Your task to perform on an android device: Search for vegetarian restaurants on Maps Image 0: 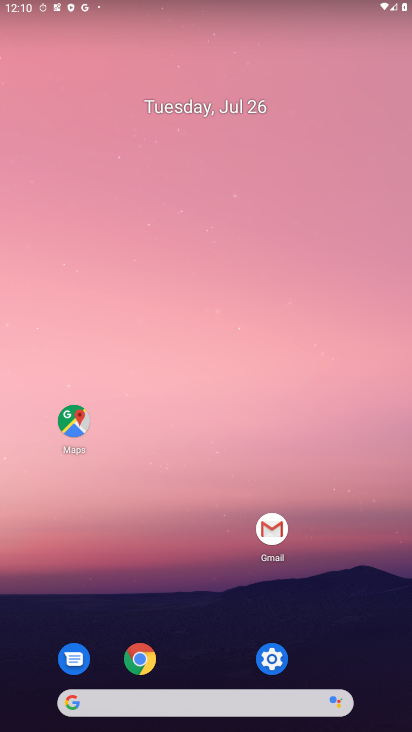
Step 0: click (71, 426)
Your task to perform on an android device: Search for vegetarian restaurants on Maps Image 1: 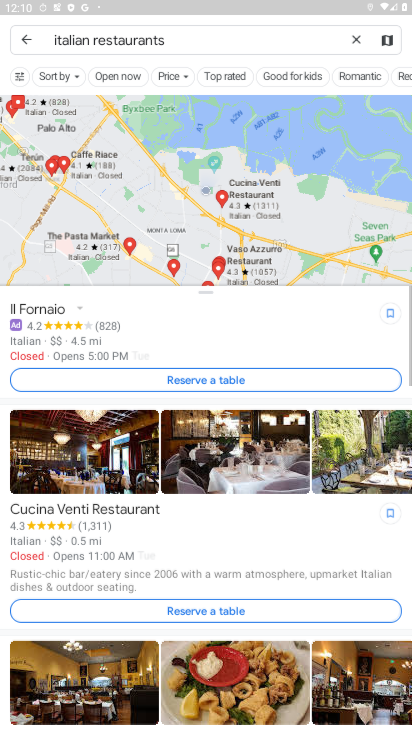
Step 1: click (355, 45)
Your task to perform on an android device: Search for vegetarian restaurants on Maps Image 2: 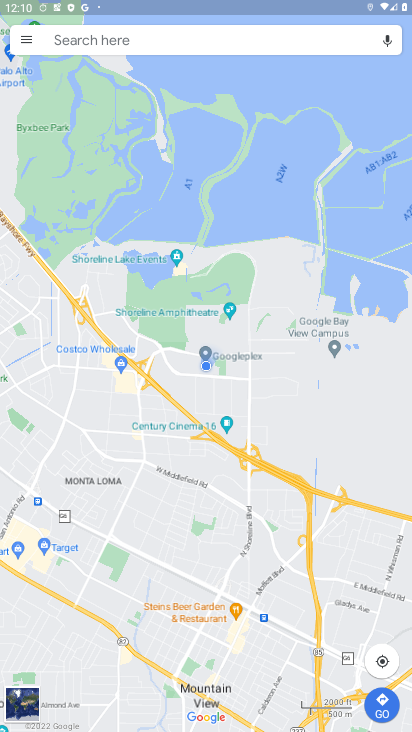
Step 2: click (173, 44)
Your task to perform on an android device: Search for vegetarian restaurants on Maps Image 3: 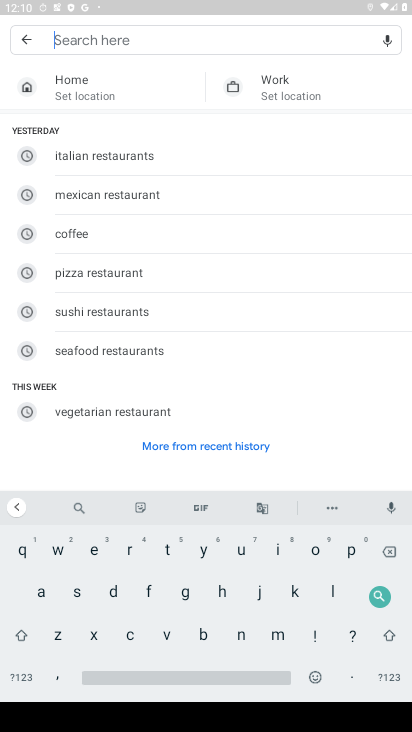
Step 3: click (124, 407)
Your task to perform on an android device: Search for vegetarian restaurants on Maps Image 4: 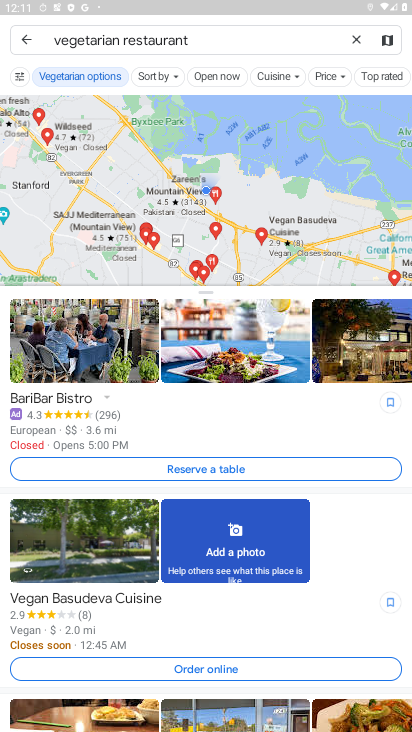
Step 4: task complete